Your task to perform on an android device: Check the news Image 0: 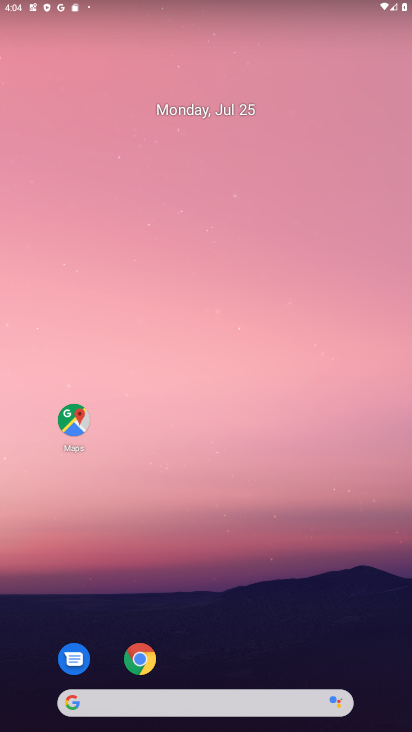
Step 0: drag from (5, 300) to (374, 306)
Your task to perform on an android device: Check the news Image 1: 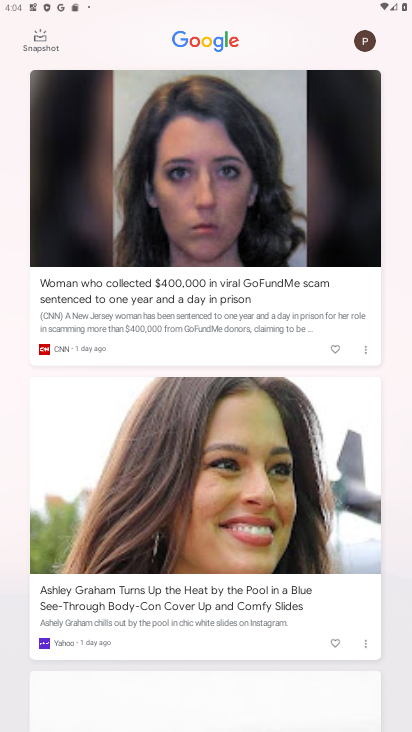
Step 1: task complete